Your task to perform on an android device: check out phone information Image 0: 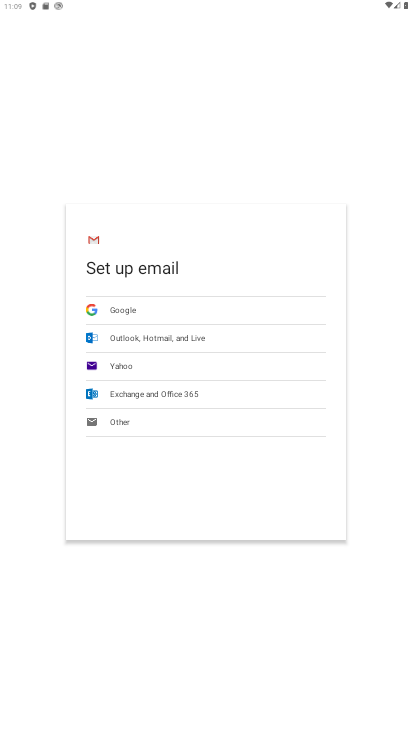
Step 0: press home button
Your task to perform on an android device: check out phone information Image 1: 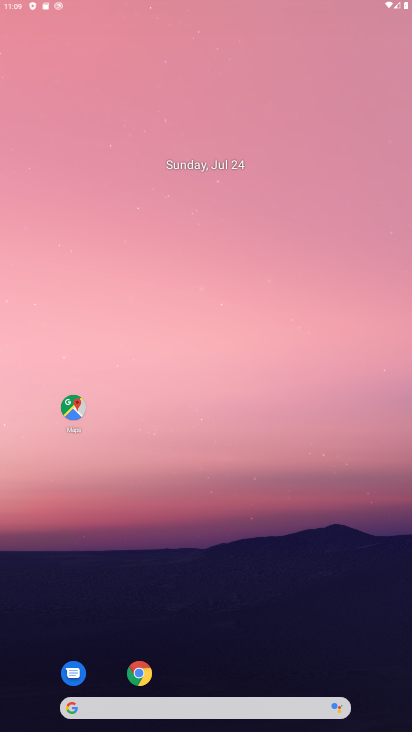
Step 1: drag from (334, 617) to (261, 30)
Your task to perform on an android device: check out phone information Image 2: 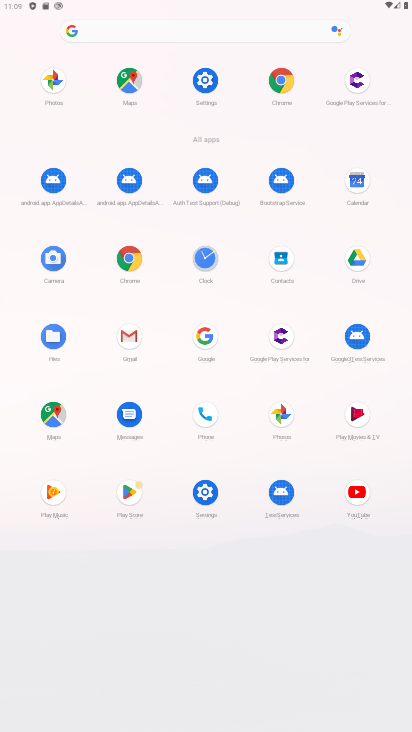
Step 2: click (199, 414)
Your task to perform on an android device: check out phone information Image 3: 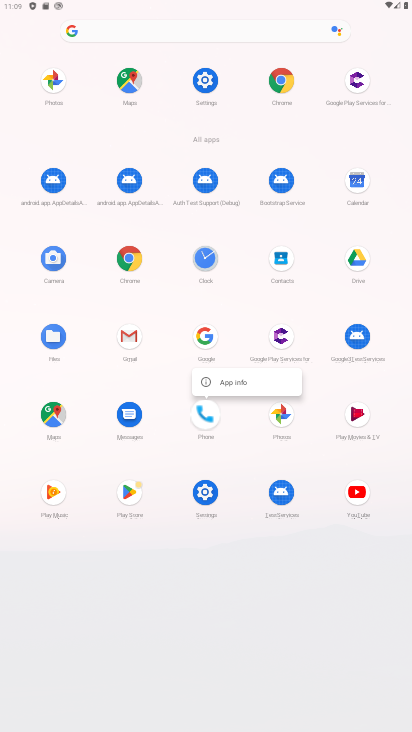
Step 3: click (234, 383)
Your task to perform on an android device: check out phone information Image 4: 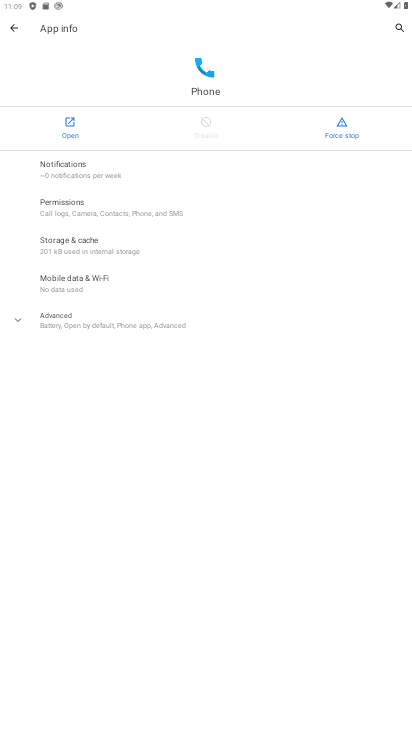
Step 4: click (122, 329)
Your task to perform on an android device: check out phone information Image 5: 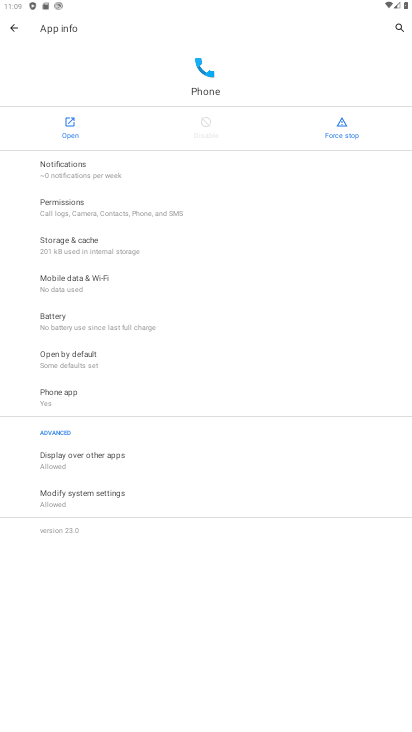
Step 5: task complete